Your task to perform on an android device: choose inbox layout in the gmail app Image 0: 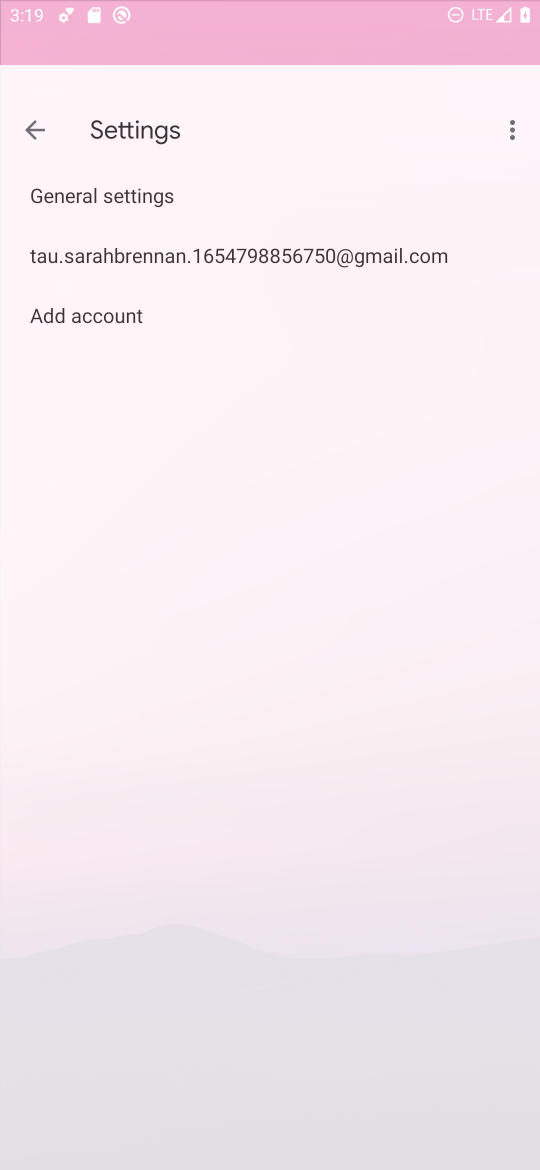
Step 0: click (387, 812)
Your task to perform on an android device: choose inbox layout in the gmail app Image 1: 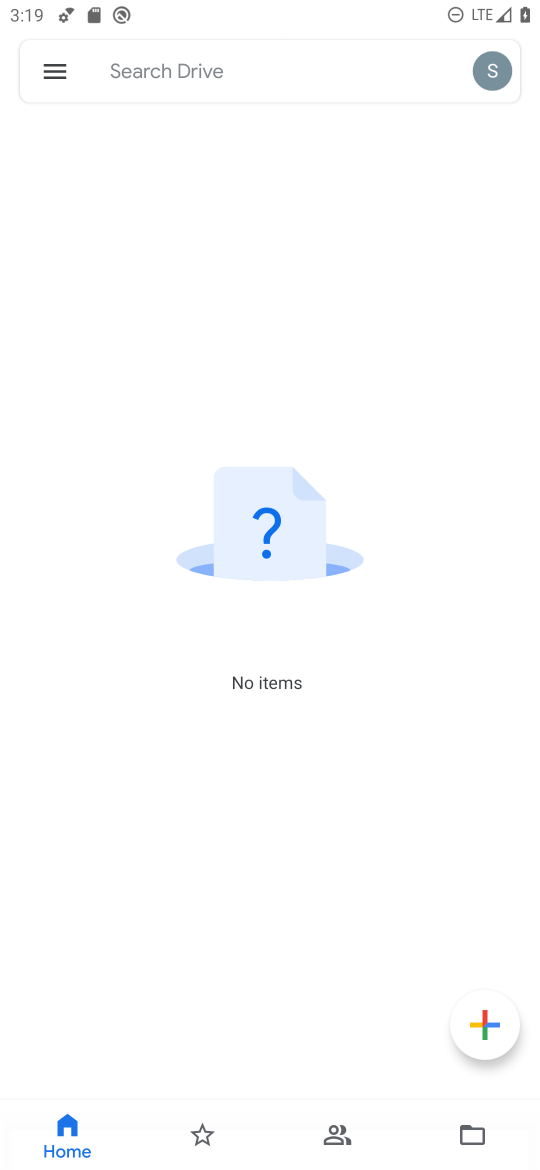
Step 1: press home button
Your task to perform on an android device: choose inbox layout in the gmail app Image 2: 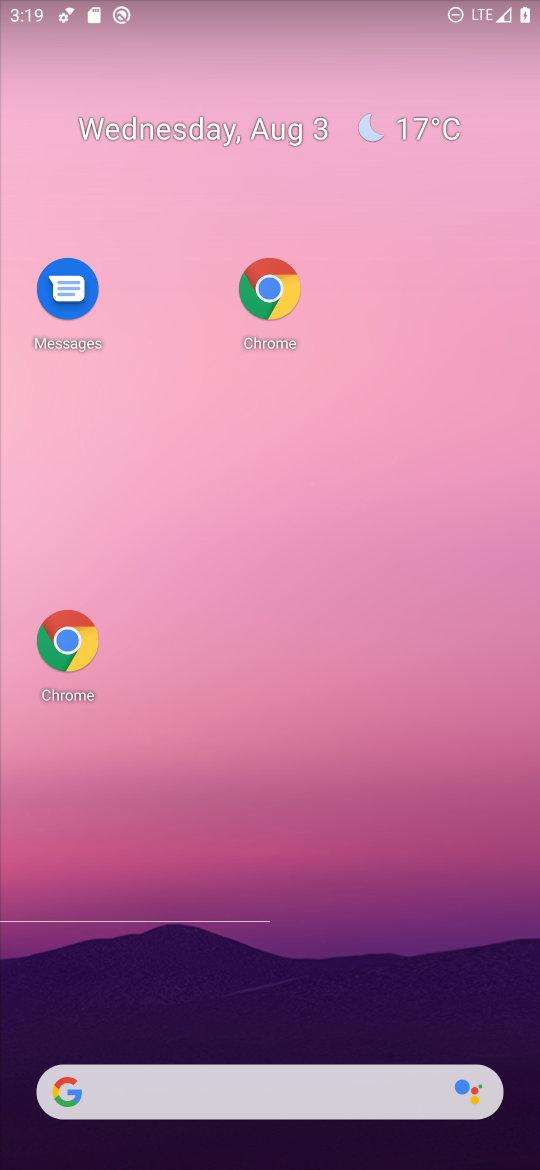
Step 2: drag from (359, 894) to (378, 201)
Your task to perform on an android device: choose inbox layout in the gmail app Image 3: 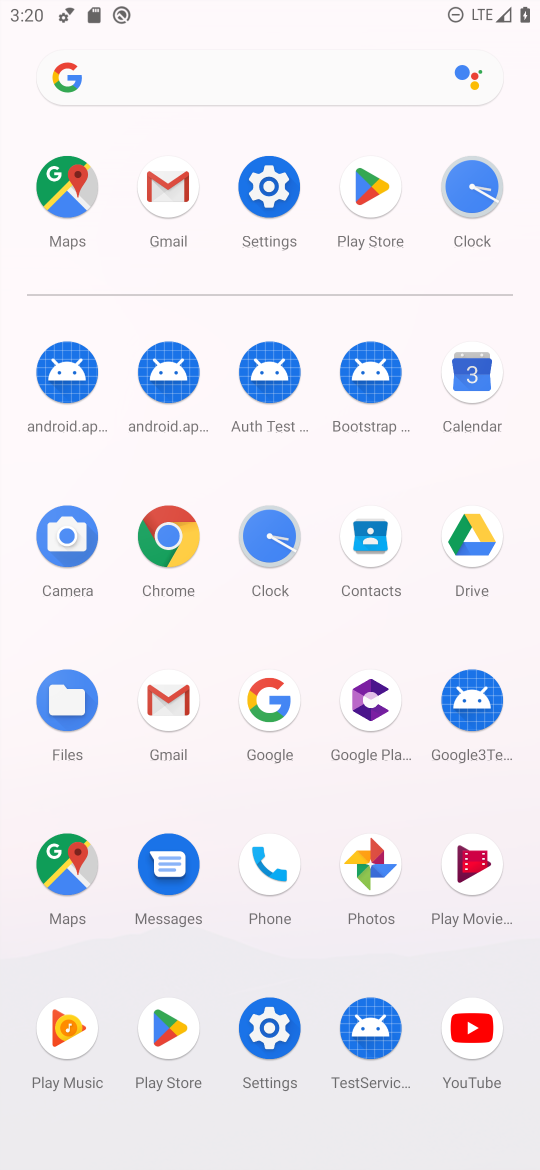
Step 3: click (194, 196)
Your task to perform on an android device: choose inbox layout in the gmail app Image 4: 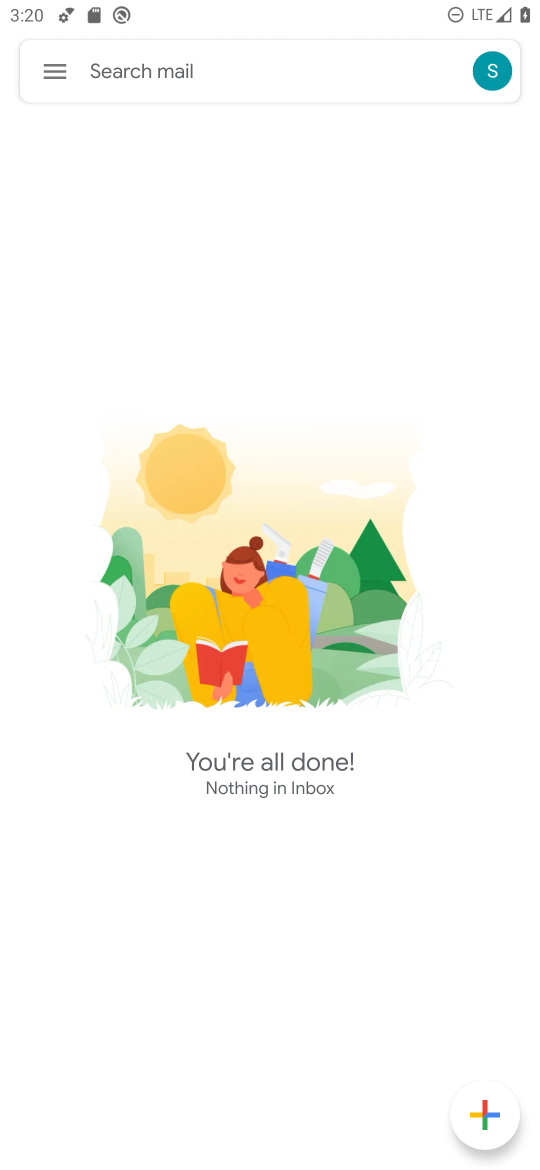
Step 4: click (58, 60)
Your task to perform on an android device: choose inbox layout in the gmail app Image 5: 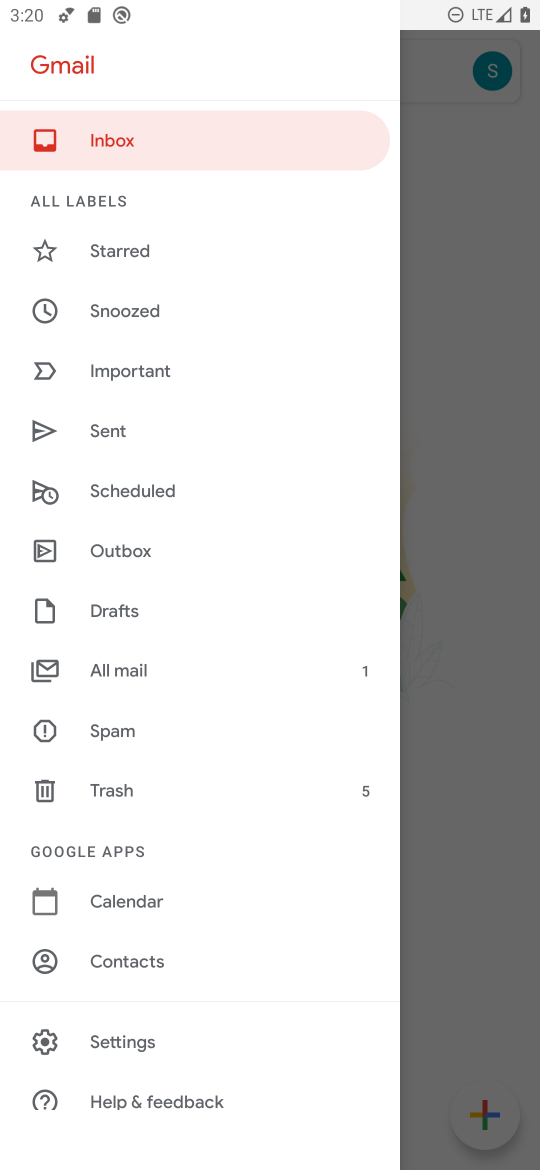
Step 5: task complete